Your task to perform on an android device: turn off picture-in-picture Image 0: 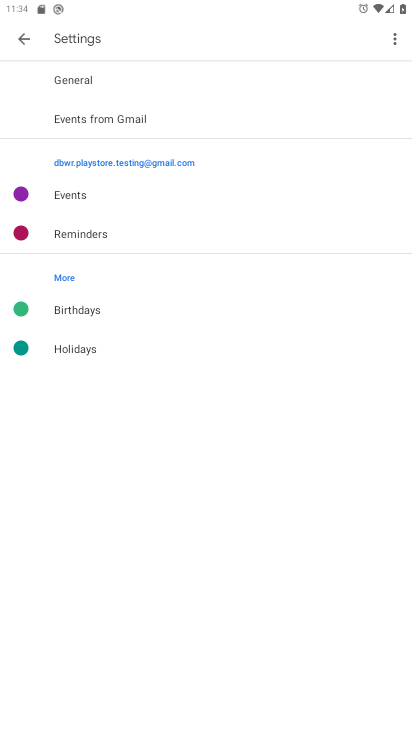
Step 0: press home button
Your task to perform on an android device: turn off picture-in-picture Image 1: 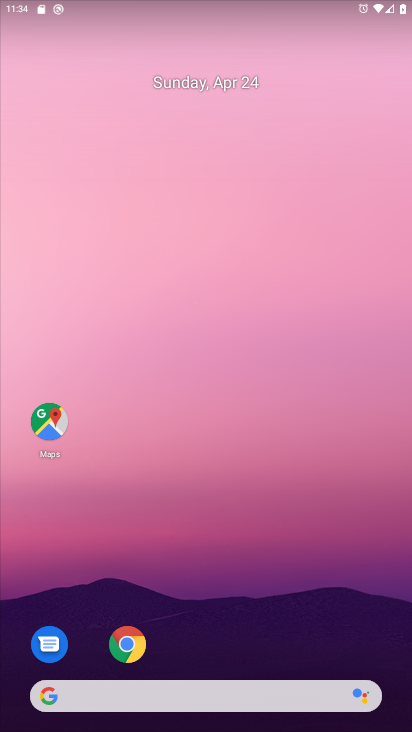
Step 1: click (133, 650)
Your task to perform on an android device: turn off picture-in-picture Image 2: 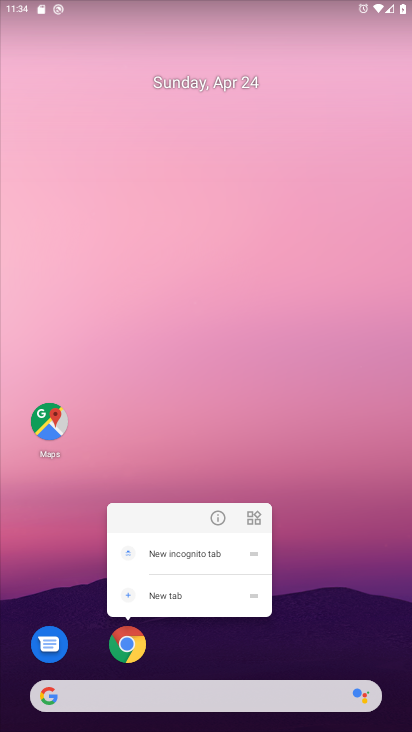
Step 2: click (213, 519)
Your task to perform on an android device: turn off picture-in-picture Image 3: 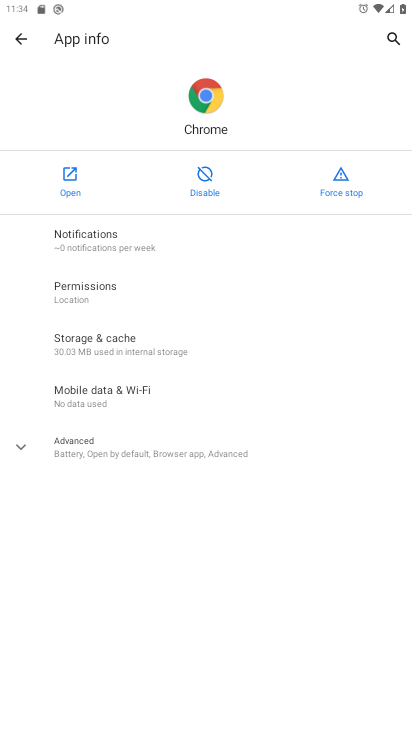
Step 3: click (83, 451)
Your task to perform on an android device: turn off picture-in-picture Image 4: 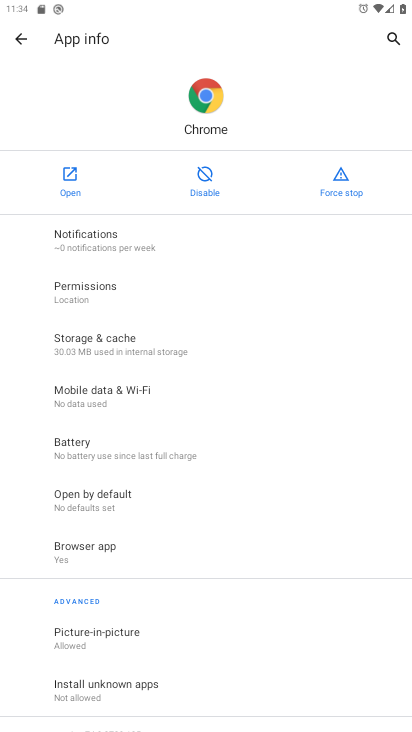
Step 4: click (103, 632)
Your task to perform on an android device: turn off picture-in-picture Image 5: 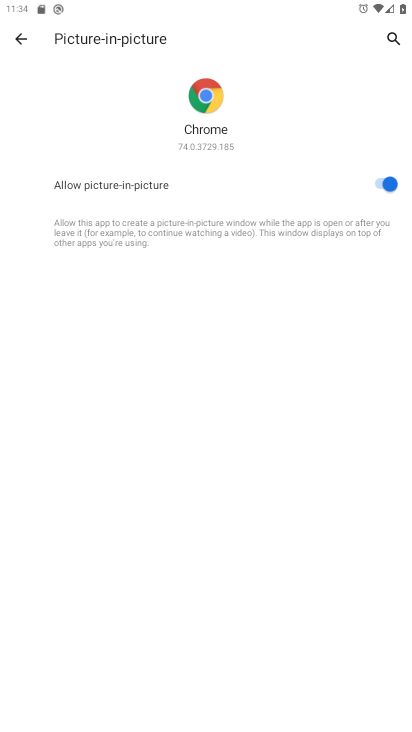
Step 5: click (376, 182)
Your task to perform on an android device: turn off picture-in-picture Image 6: 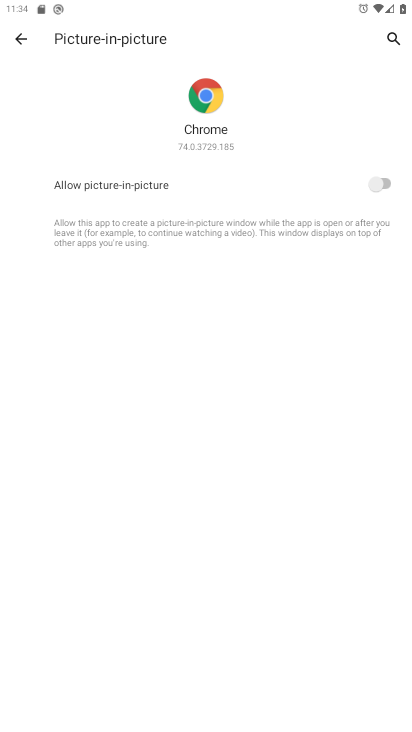
Step 6: task complete